Your task to perform on an android device: Open the phone app and click the voicemail tab. Image 0: 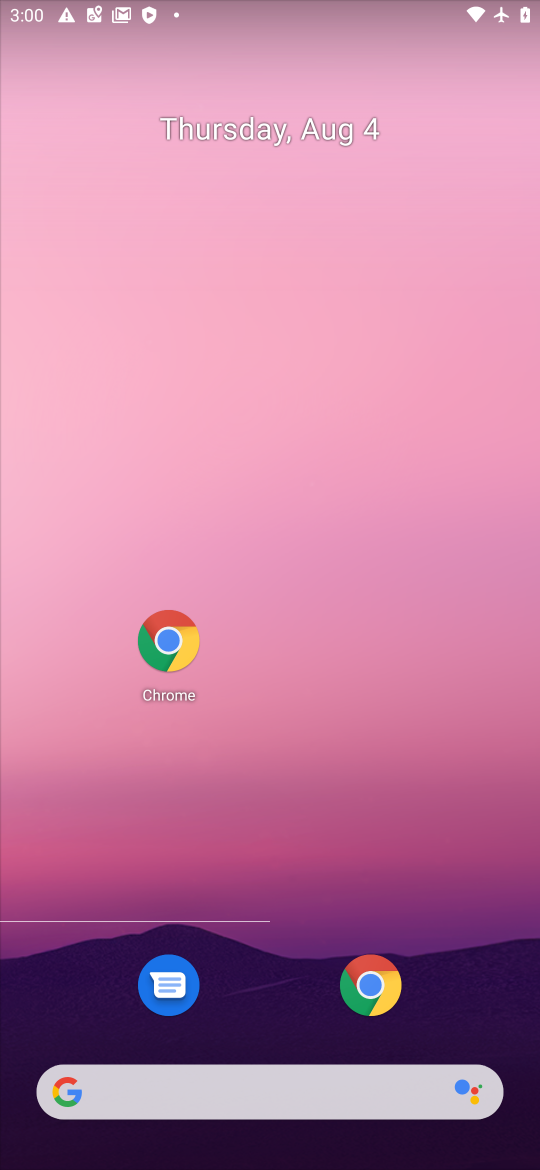
Step 0: drag from (189, 962) to (115, 369)
Your task to perform on an android device: Open the phone app and click the voicemail tab. Image 1: 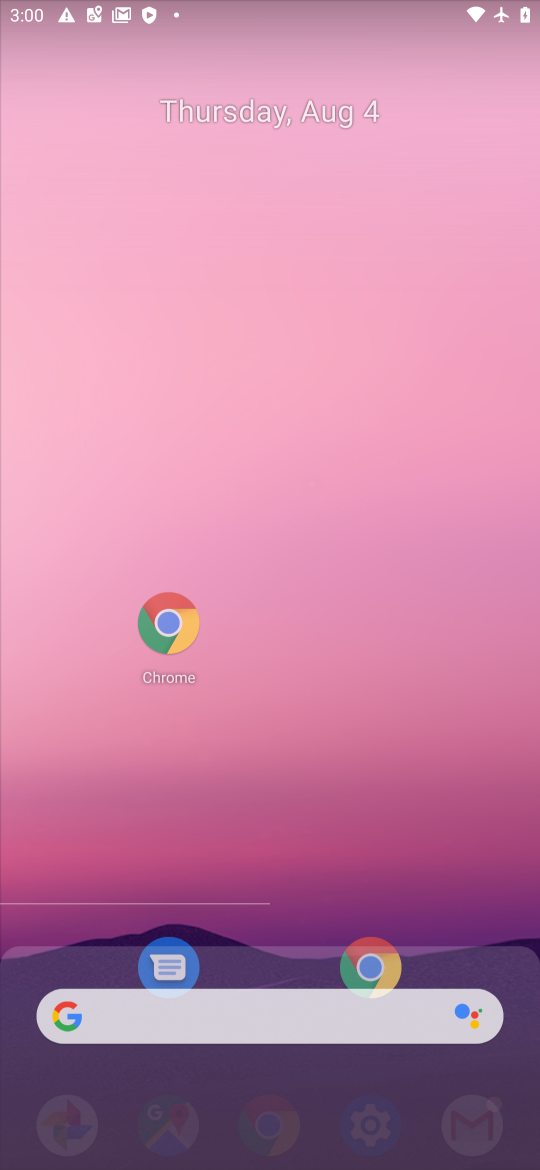
Step 1: drag from (254, 775) to (211, 243)
Your task to perform on an android device: Open the phone app and click the voicemail tab. Image 2: 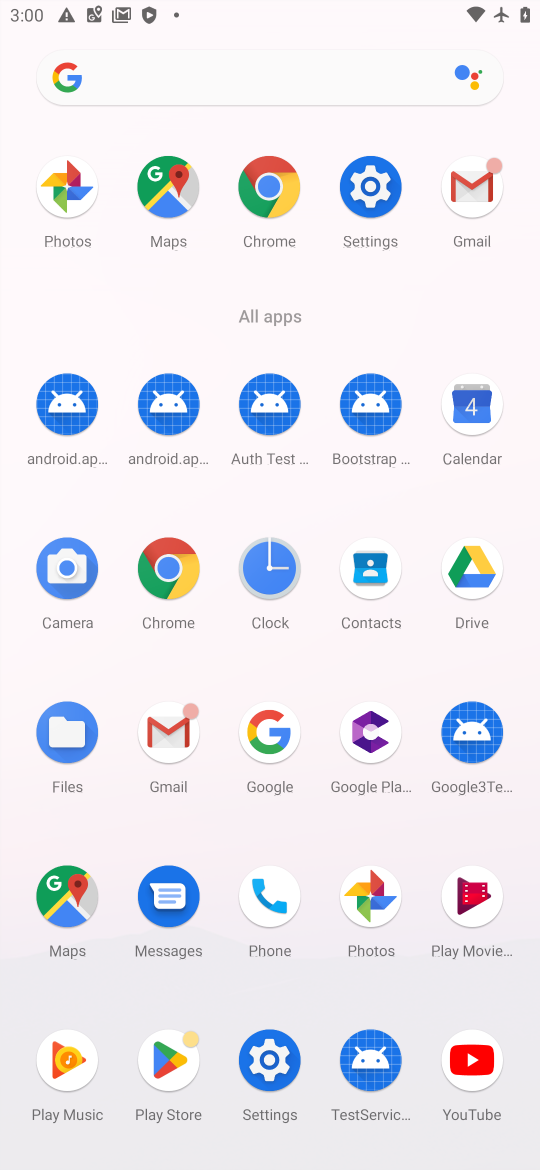
Step 2: click (255, 899)
Your task to perform on an android device: Open the phone app and click the voicemail tab. Image 3: 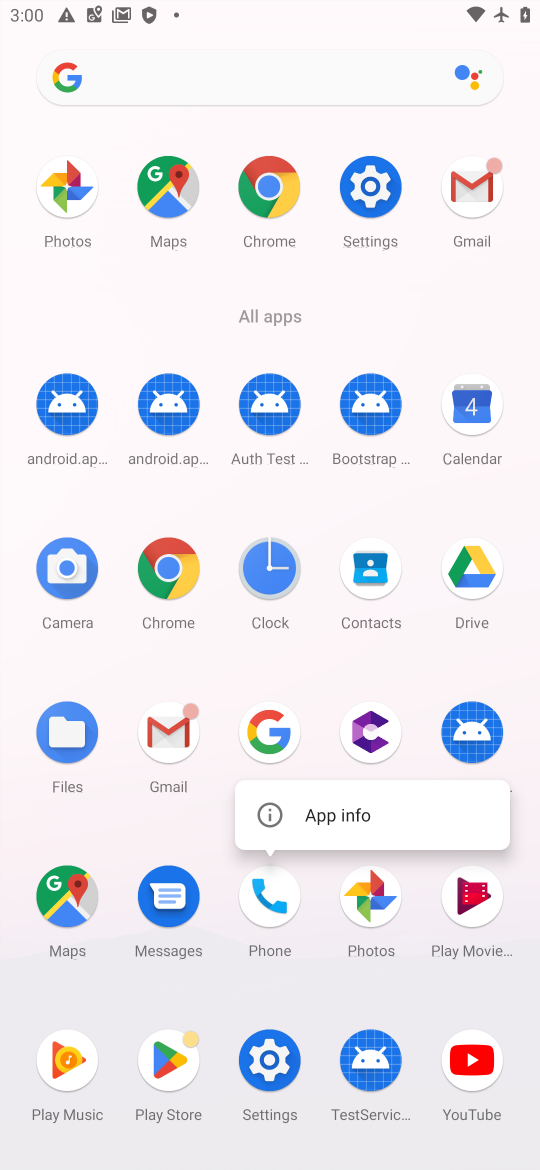
Step 3: click (258, 886)
Your task to perform on an android device: Open the phone app and click the voicemail tab. Image 4: 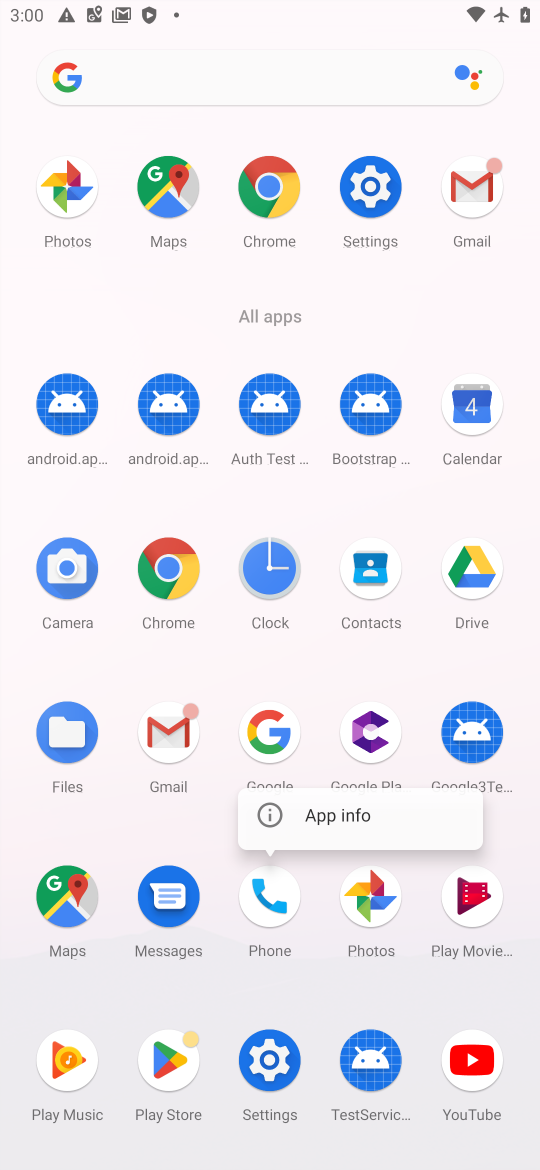
Step 4: click (261, 889)
Your task to perform on an android device: Open the phone app and click the voicemail tab. Image 5: 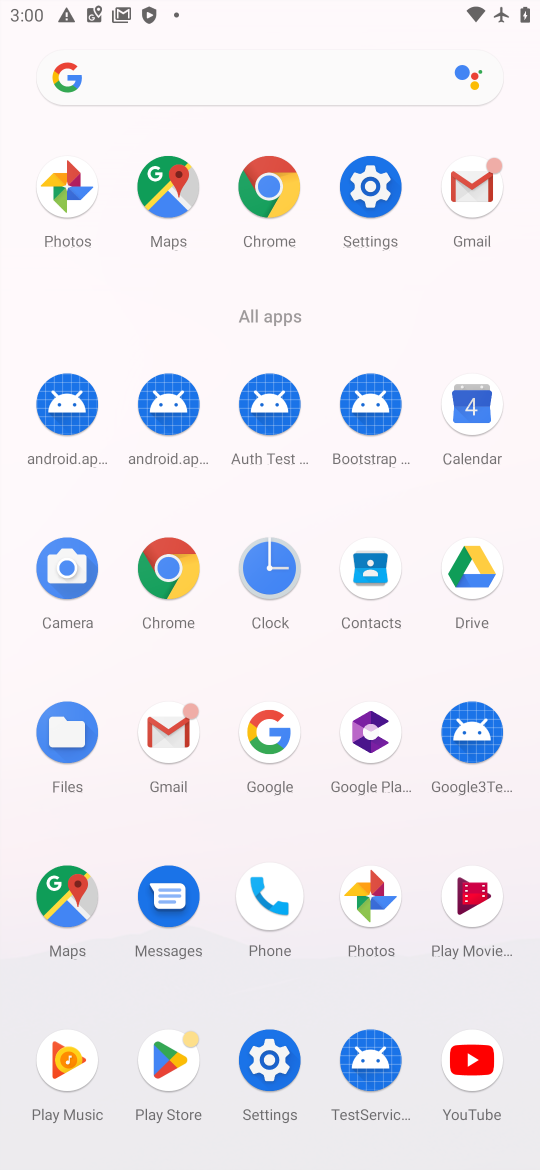
Step 5: click (263, 889)
Your task to perform on an android device: Open the phone app and click the voicemail tab. Image 6: 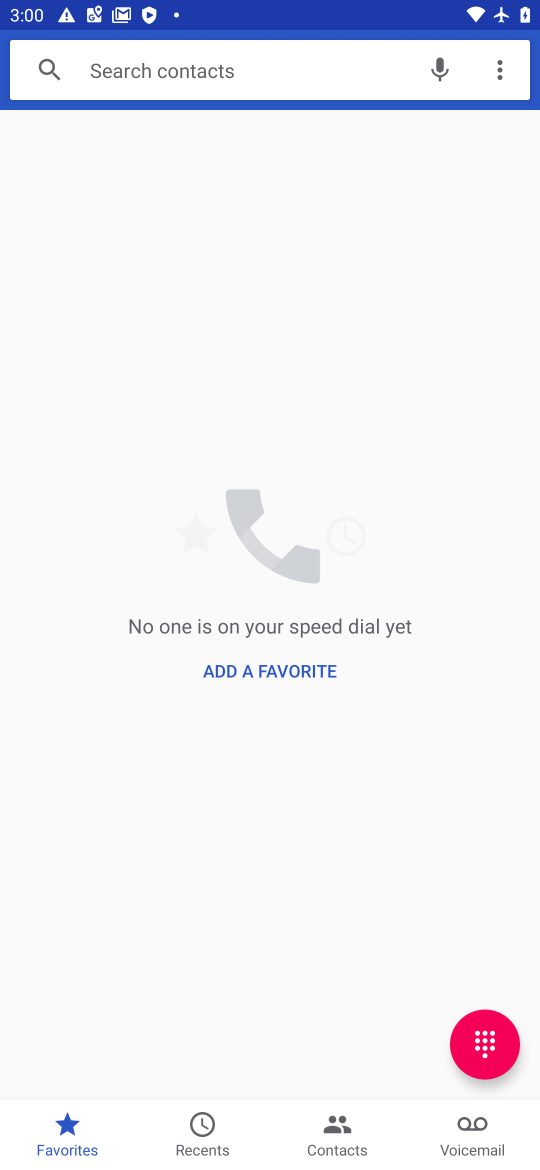
Step 6: click (492, 1146)
Your task to perform on an android device: Open the phone app and click the voicemail tab. Image 7: 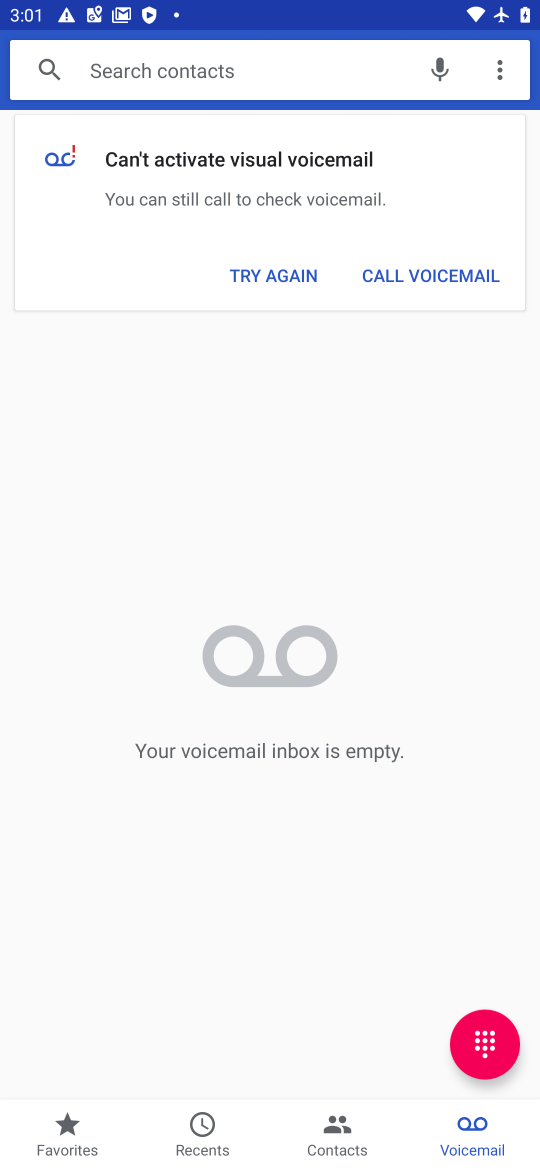
Step 7: click (476, 1143)
Your task to perform on an android device: Open the phone app and click the voicemail tab. Image 8: 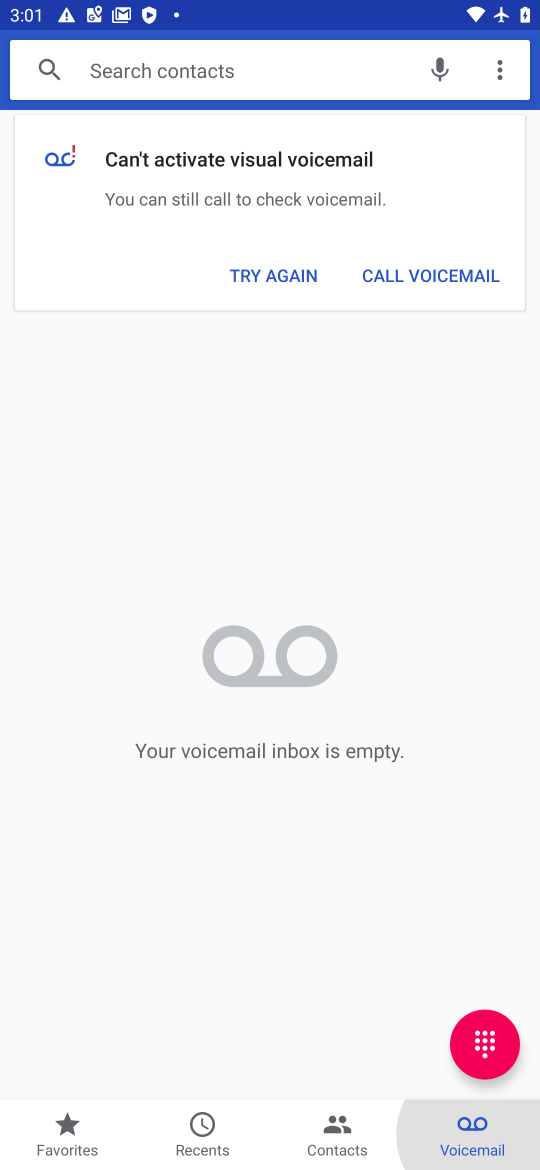
Step 8: click (476, 1142)
Your task to perform on an android device: Open the phone app and click the voicemail tab. Image 9: 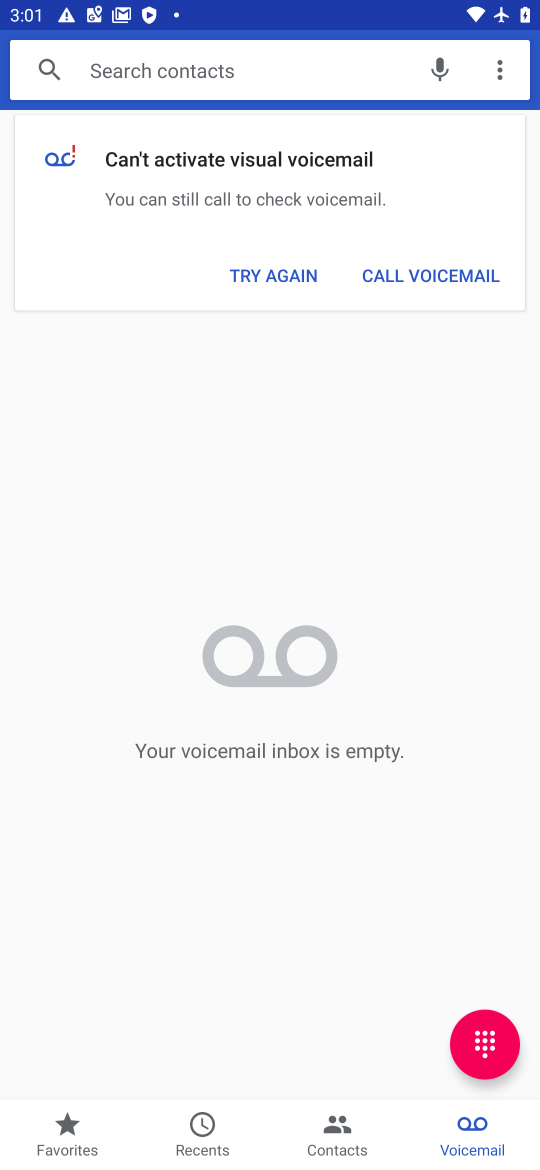
Step 9: click (476, 1142)
Your task to perform on an android device: Open the phone app and click the voicemail tab. Image 10: 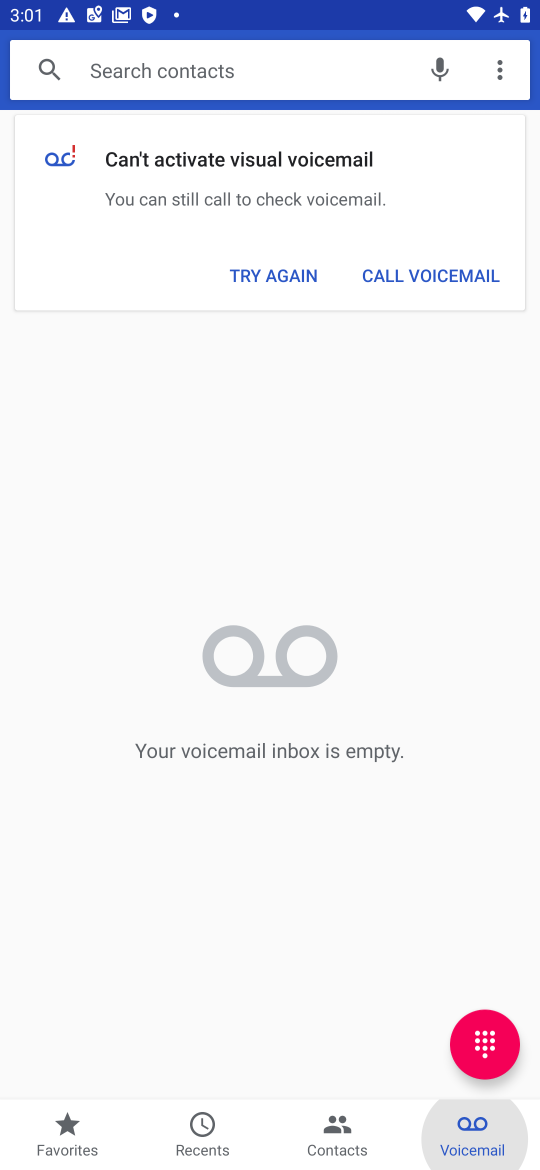
Step 10: click (476, 1142)
Your task to perform on an android device: Open the phone app and click the voicemail tab. Image 11: 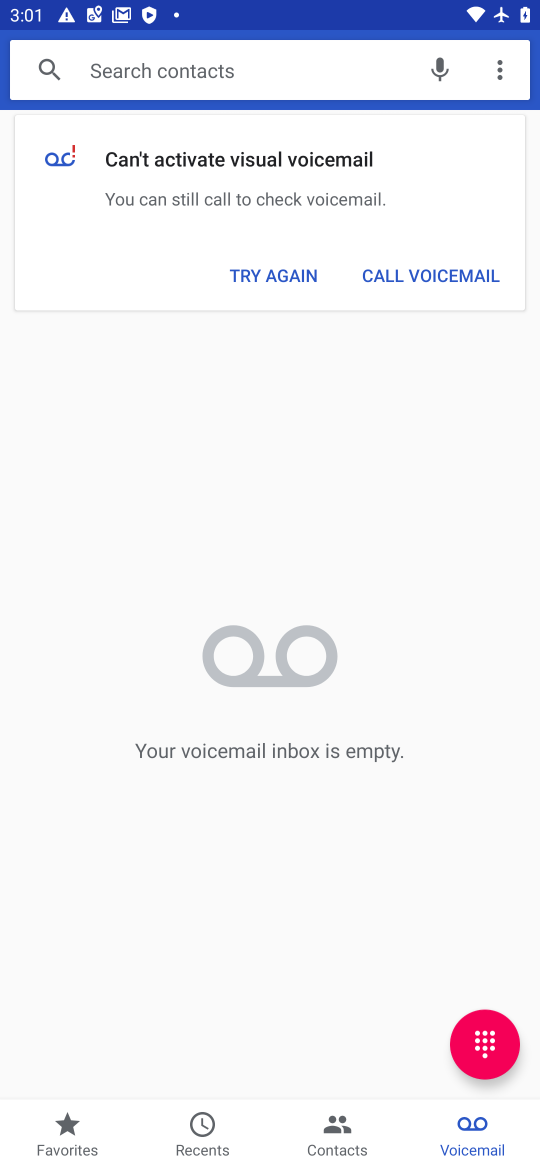
Step 11: click (484, 1132)
Your task to perform on an android device: Open the phone app and click the voicemail tab. Image 12: 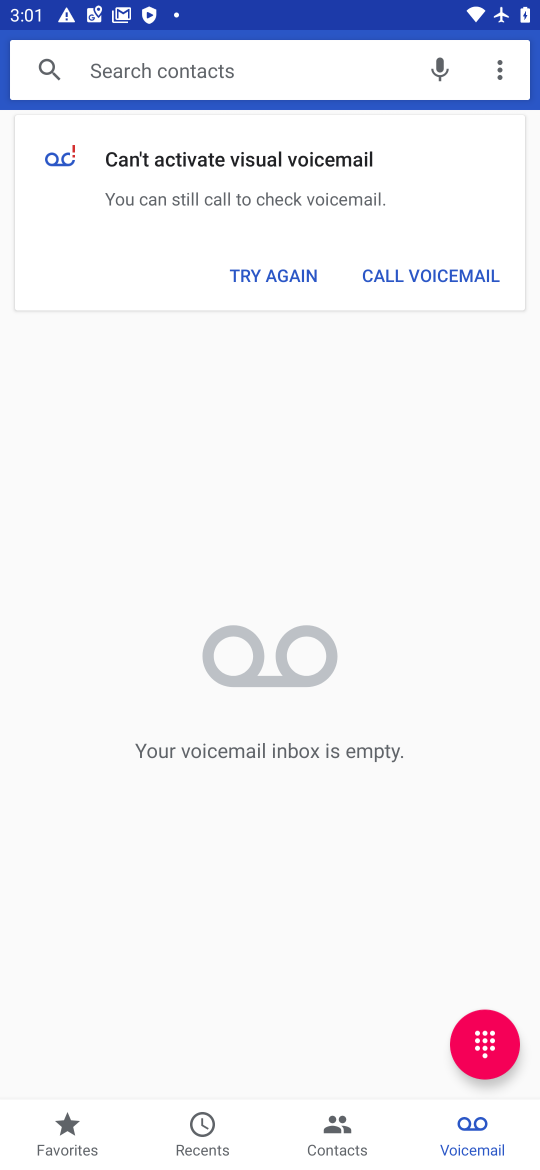
Step 12: click (481, 1133)
Your task to perform on an android device: Open the phone app and click the voicemail tab. Image 13: 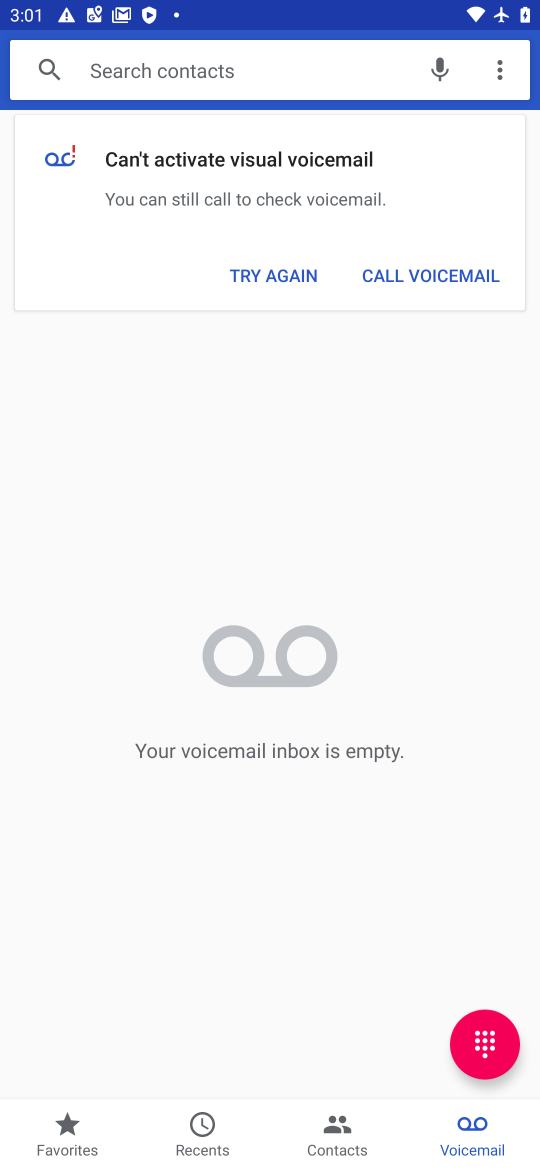
Step 13: task complete